Your task to perform on an android device: see creations saved in the google photos Image 0: 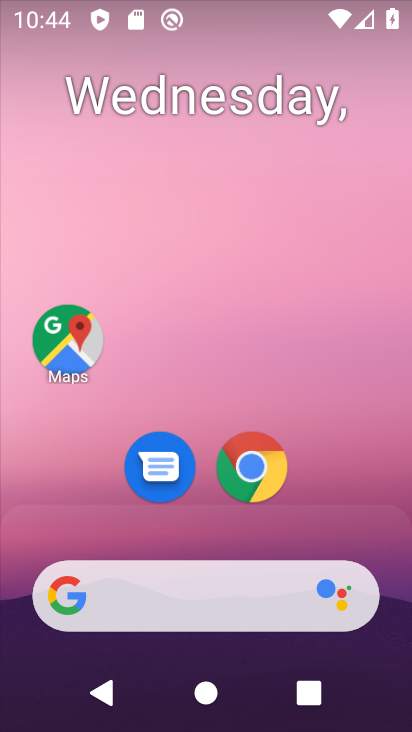
Step 0: drag from (215, 309) to (282, 29)
Your task to perform on an android device: see creations saved in the google photos Image 1: 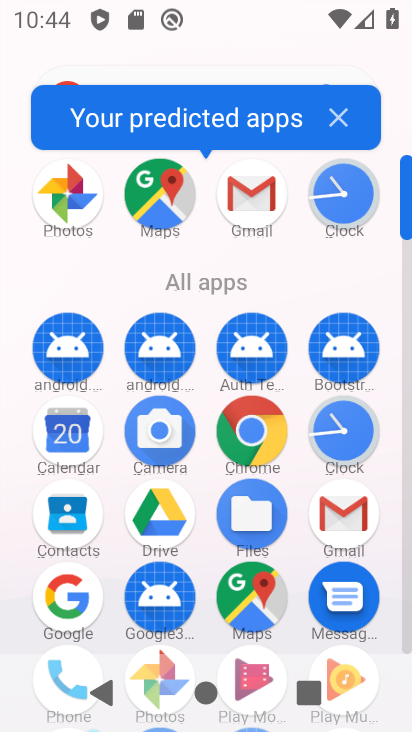
Step 1: drag from (176, 618) to (246, 277)
Your task to perform on an android device: see creations saved in the google photos Image 2: 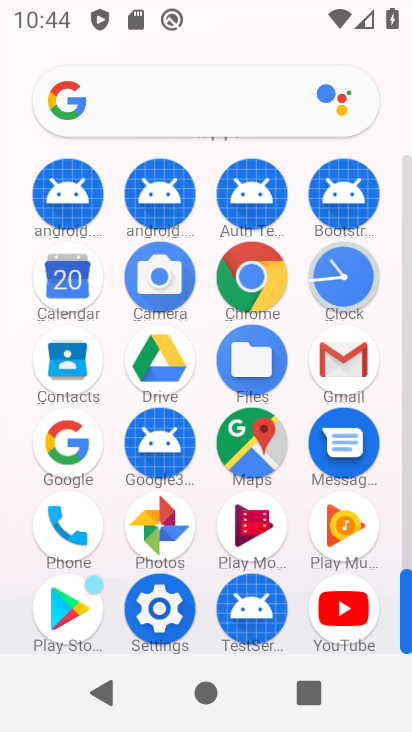
Step 2: click (179, 566)
Your task to perform on an android device: see creations saved in the google photos Image 3: 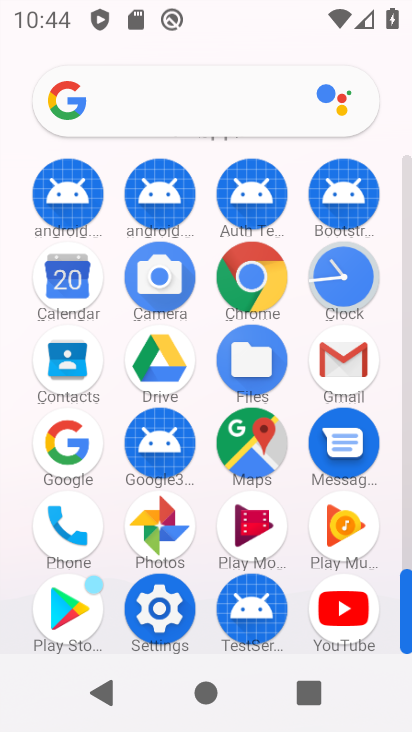
Step 3: click (171, 551)
Your task to perform on an android device: see creations saved in the google photos Image 4: 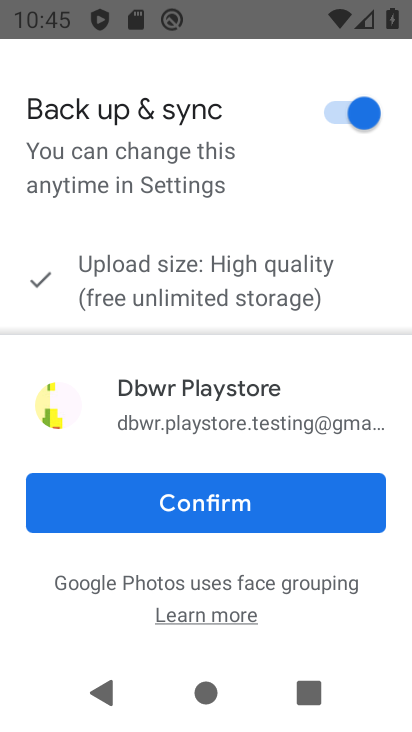
Step 4: click (210, 515)
Your task to perform on an android device: see creations saved in the google photos Image 5: 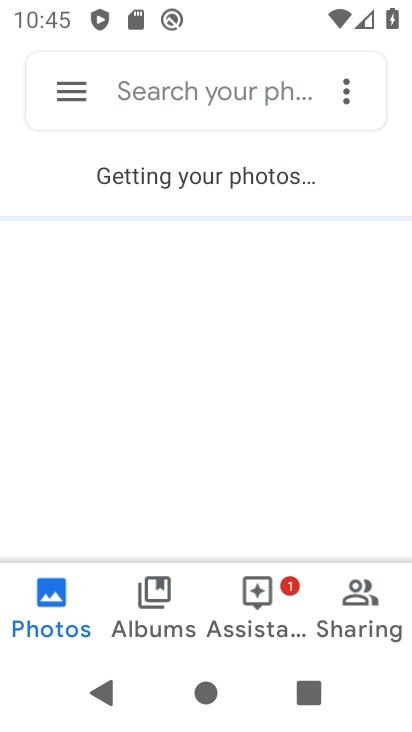
Step 5: click (157, 100)
Your task to perform on an android device: see creations saved in the google photos Image 6: 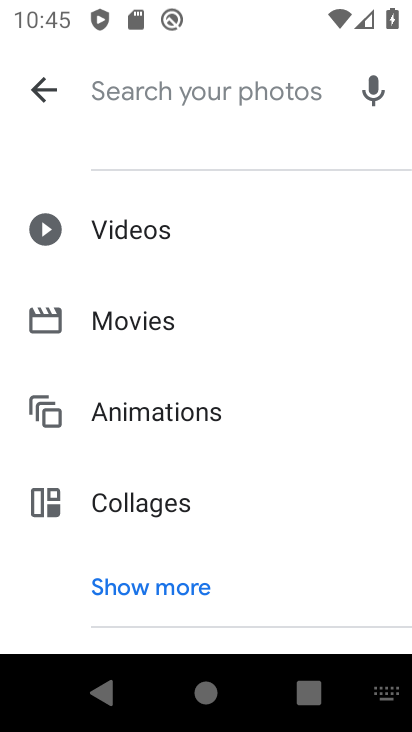
Step 6: click (158, 585)
Your task to perform on an android device: see creations saved in the google photos Image 7: 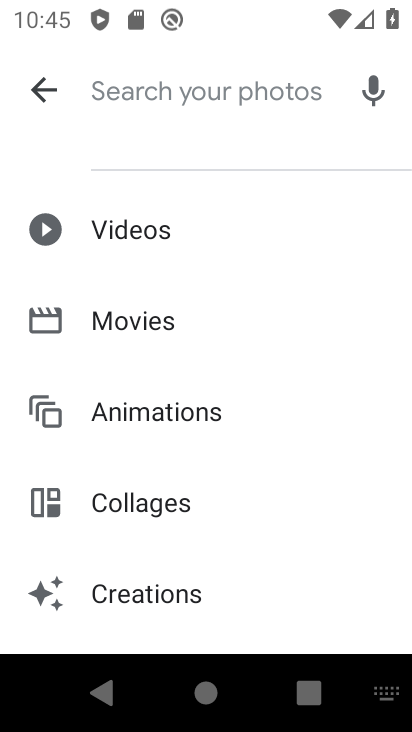
Step 7: click (188, 600)
Your task to perform on an android device: see creations saved in the google photos Image 8: 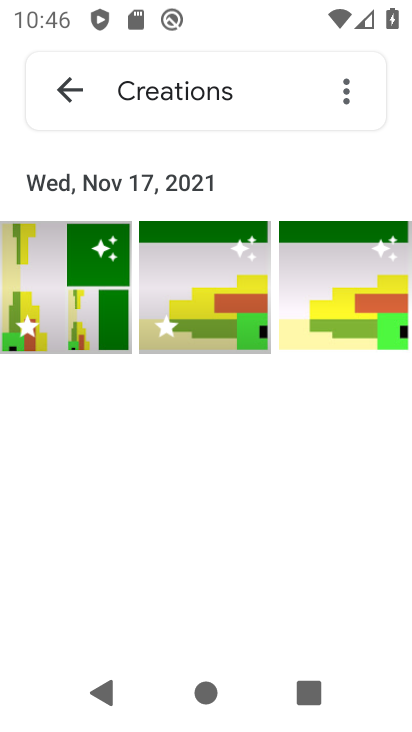
Step 8: task complete